Your task to perform on an android device: Go to display settings Image 0: 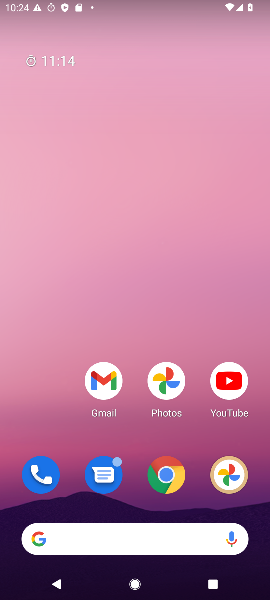
Step 0: drag from (127, 490) to (149, 109)
Your task to perform on an android device: Go to display settings Image 1: 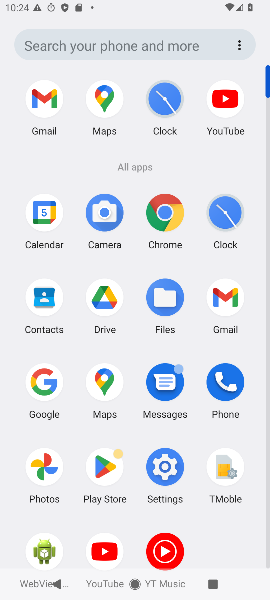
Step 1: click (163, 476)
Your task to perform on an android device: Go to display settings Image 2: 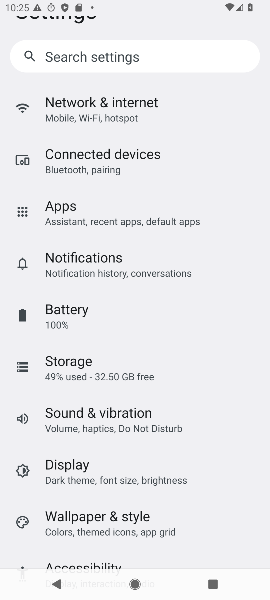
Step 2: click (97, 467)
Your task to perform on an android device: Go to display settings Image 3: 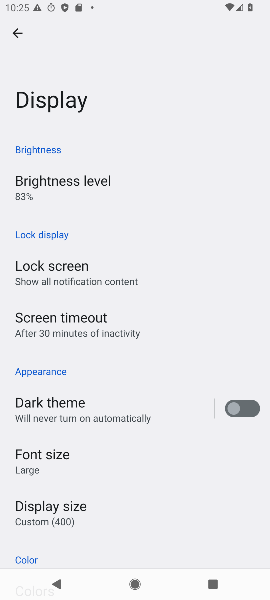
Step 3: task complete